Your task to perform on an android device: turn pop-ups off in chrome Image 0: 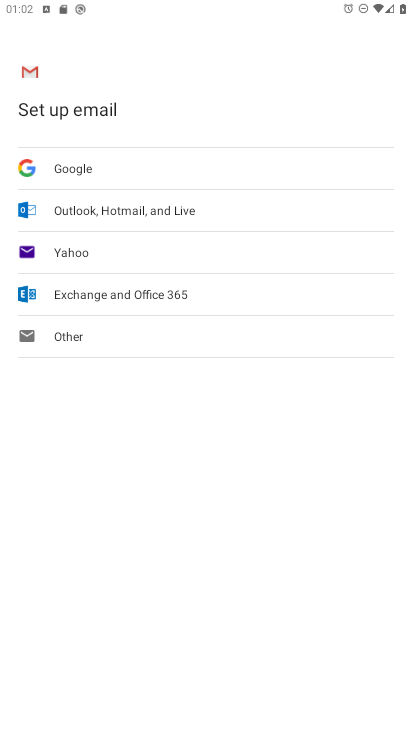
Step 0: press home button
Your task to perform on an android device: turn pop-ups off in chrome Image 1: 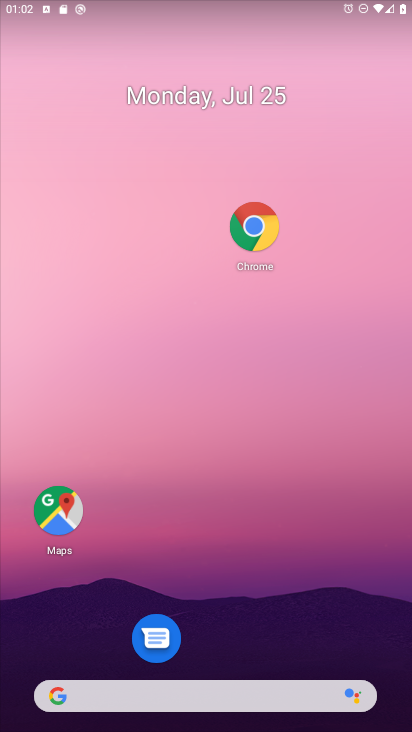
Step 1: click (257, 218)
Your task to perform on an android device: turn pop-ups off in chrome Image 2: 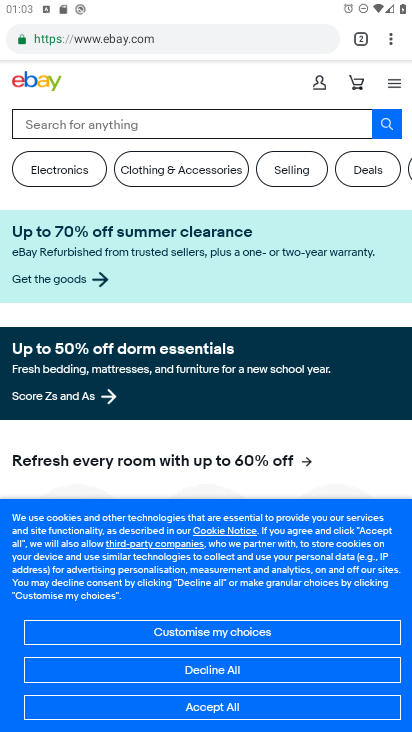
Step 2: click (395, 35)
Your task to perform on an android device: turn pop-ups off in chrome Image 3: 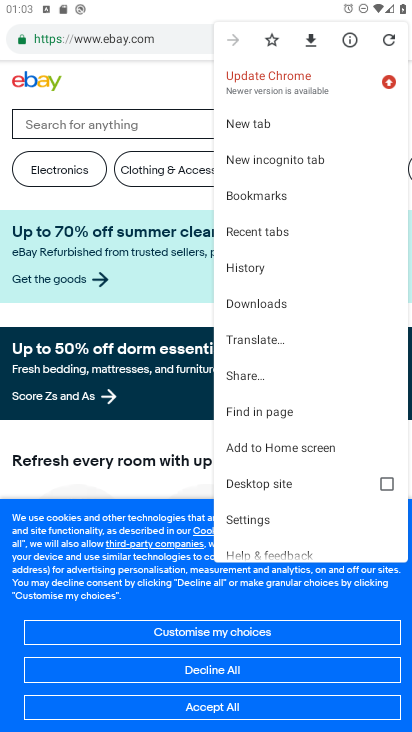
Step 3: click (268, 531)
Your task to perform on an android device: turn pop-ups off in chrome Image 4: 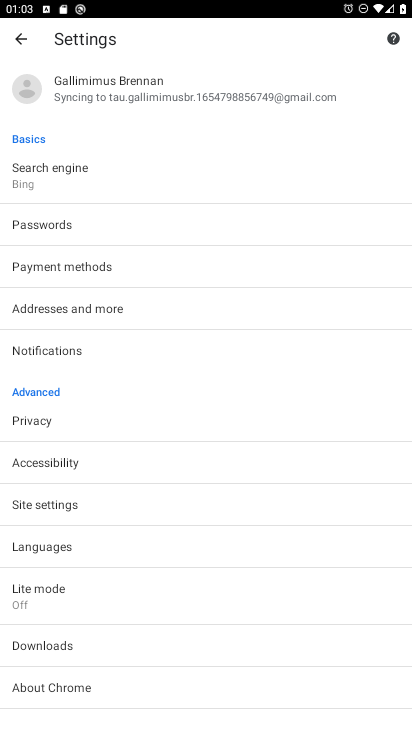
Step 4: click (60, 516)
Your task to perform on an android device: turn pop-ups off in chrome Image 5: 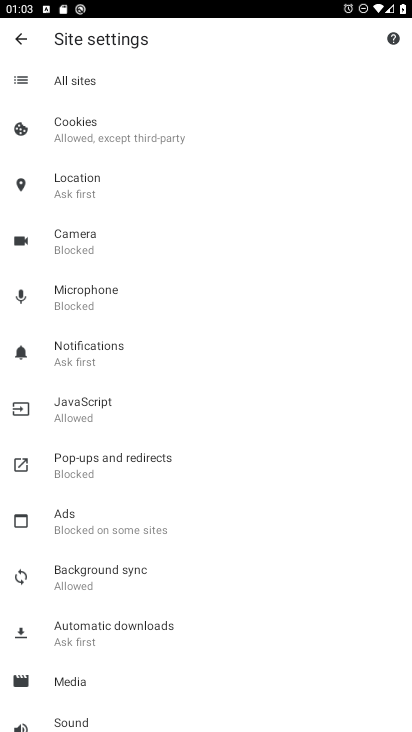
Step 5: click (124, 443)
Your task to perform on an android device: turn pop-ups off in chrome Image 6: 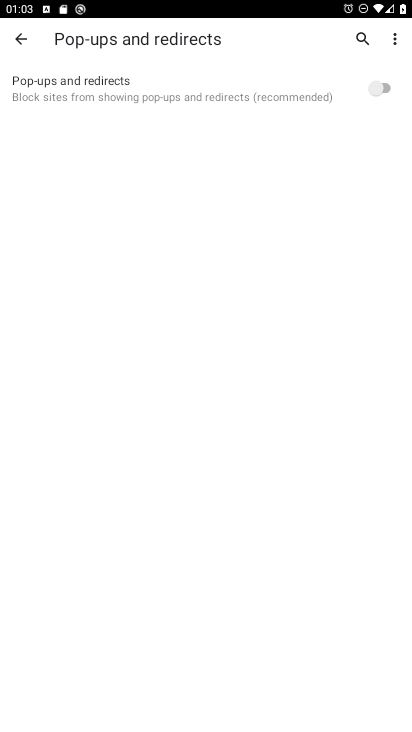
Step 6: task complete